Your task to perform on an android device: toggle notifications settings in the gmail app Image 0: 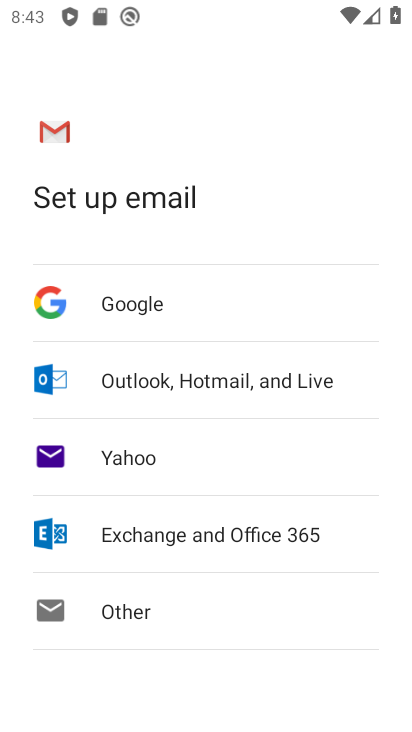
Step 0: press back button
Your task to perform on an android device: toggle notifications settings in the gmail app Image 1: 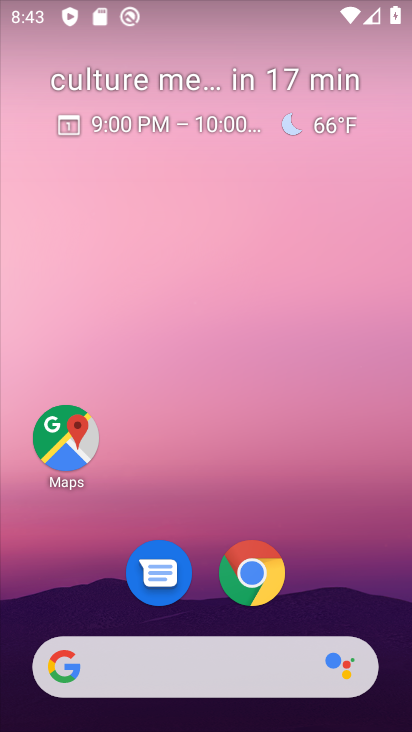
Step 1: drag from (197, 567) to (204, 155)
Your task to perform on an android device: toggle notifications settings in the gmail app Image 2: 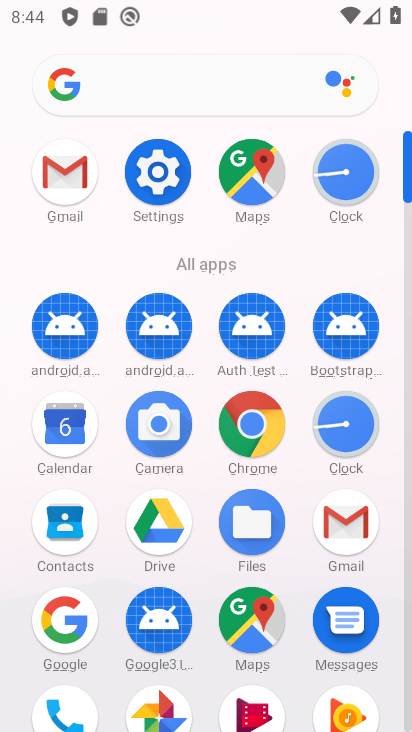
Step 2: click (69, 162)
Your task to perform on an android device: toggle notifications settings in the gmail app Image 3: 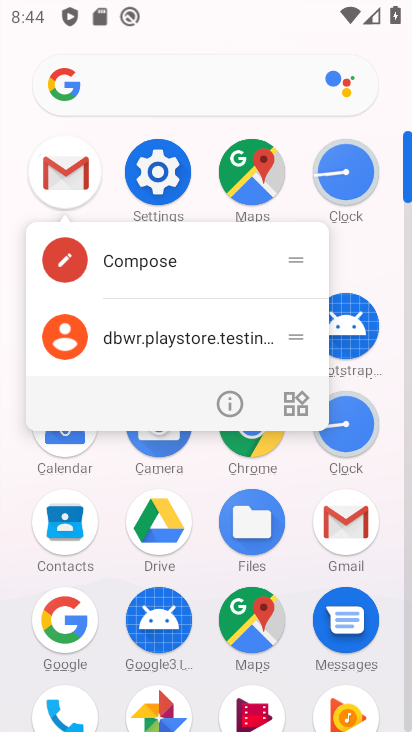
Step 3: click (230, 403)
Your task to perform on an android device: toggle notifications settings in the gmail app Image 4: 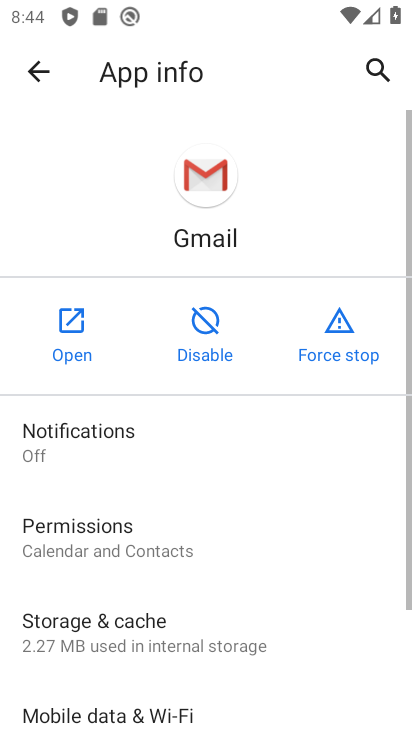
Step 4: click (141, 445)
Your task to perform on an android device: toggle notifications settings in the gmail app Image 5: 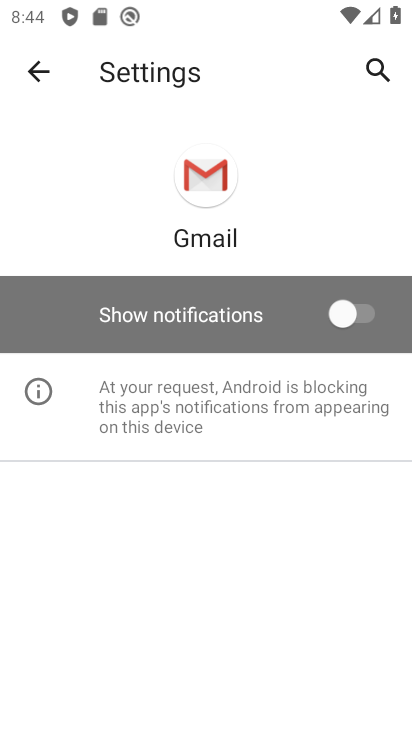
Step 5: click (338, 313)
Your task to perform on an android device: toggle notifications settings in the gmail app Image 6: 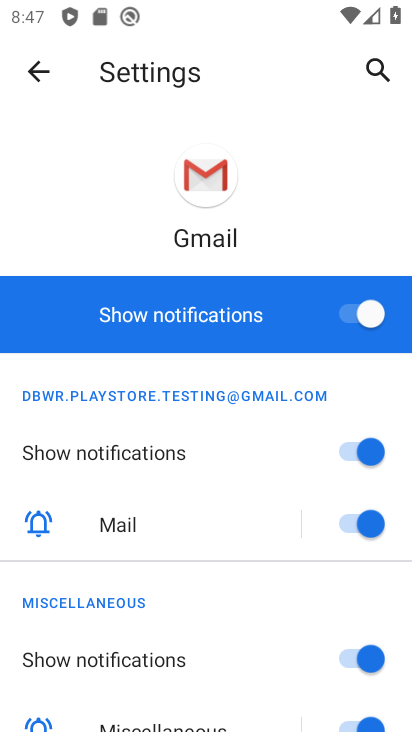
Step 6: click (370, 327)
Your task to perform on an android device: toggle notifications settings in the gmail app Image 7: 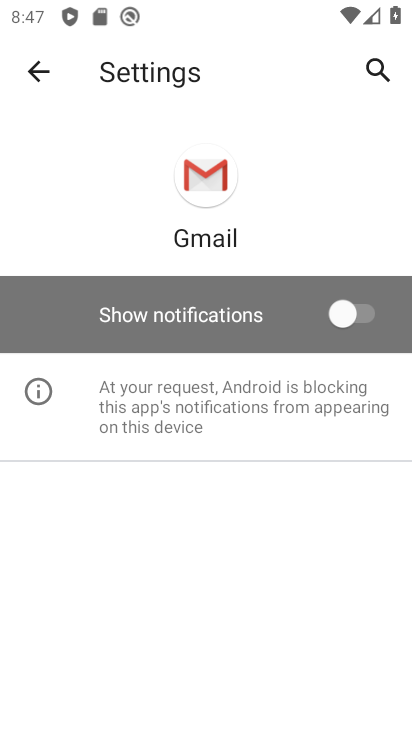
Step 7: task complete